Your task to perform on an android device: Open network settings Image 0: 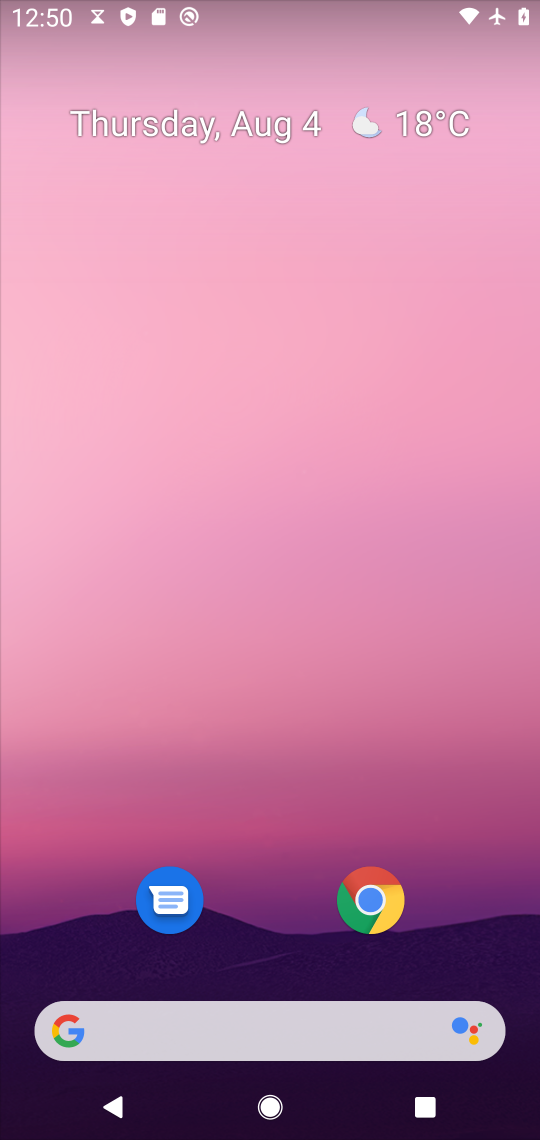
Step 0: press home button
Your task to perform on an android device: Open network settings Image 1: 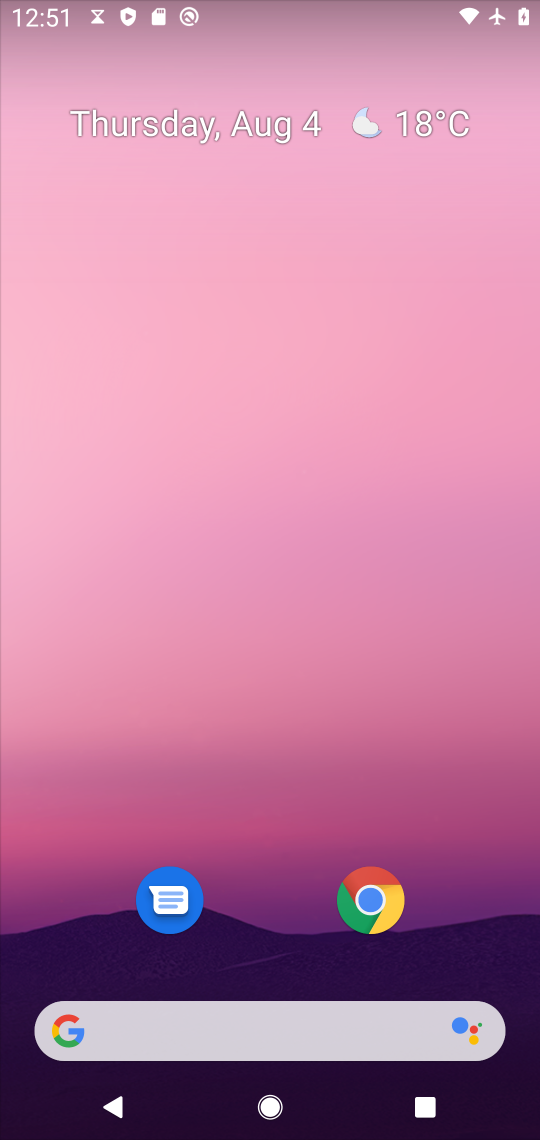
Step 1: drag from (331, 896) to (498, 162)
Your task to perform on an android device: Open network settings Image 2: 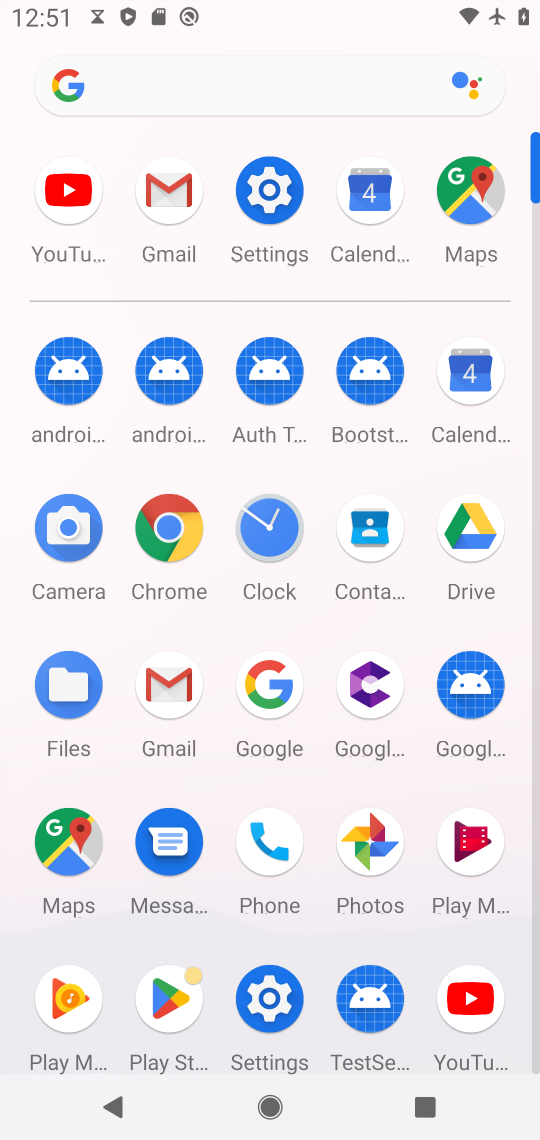
Step 2: click (268, 195)
Your task to perform on an android device: Open network settings Image 3: 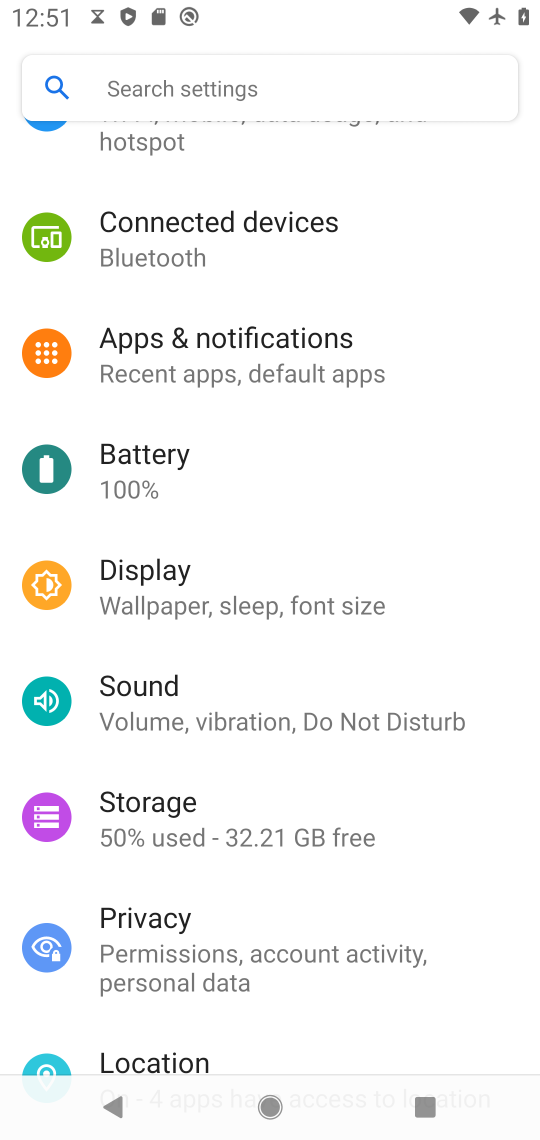
Step 3: drag from (437, 252) to (456, 779)
Your task to perform on an android device: Open network settings Image 4: 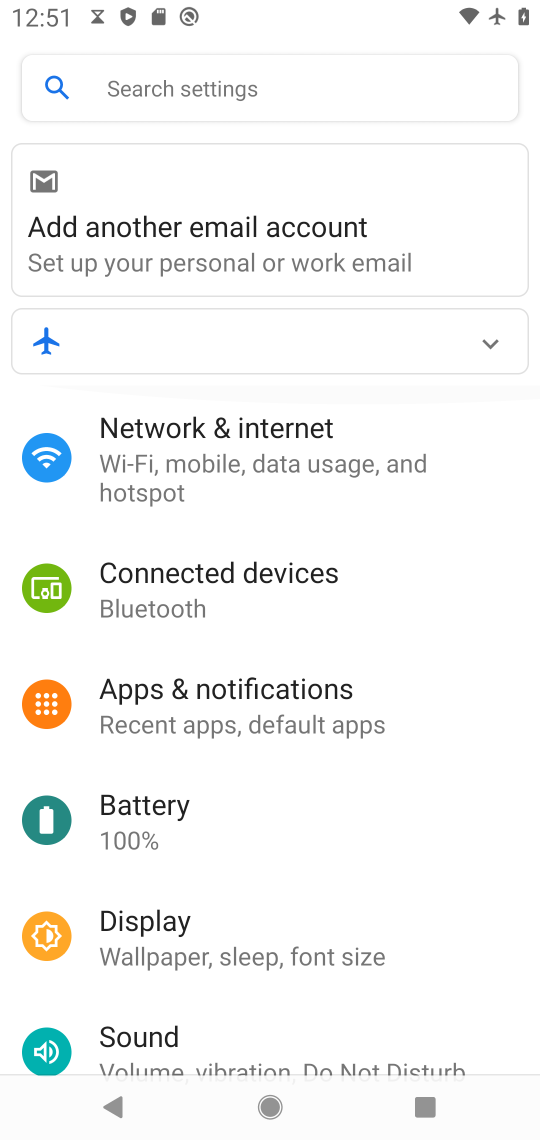
Step 4: click (120, 430)
Your task to perform on an android device: Open network settings Image 5: 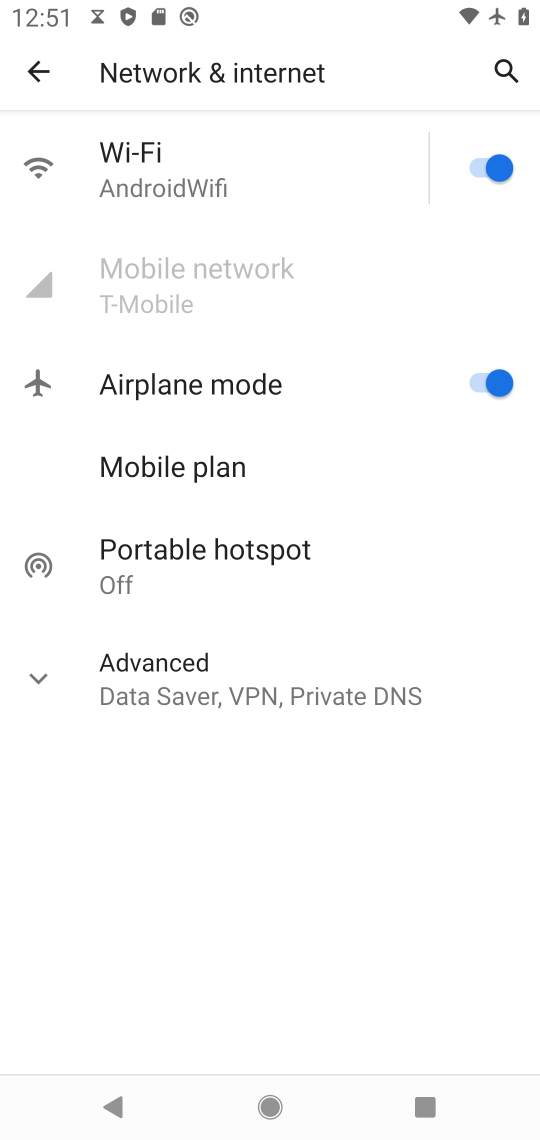
Step 5: task complete